Your task to perform on an android device: open app "Airtel Thanks" Image 0: 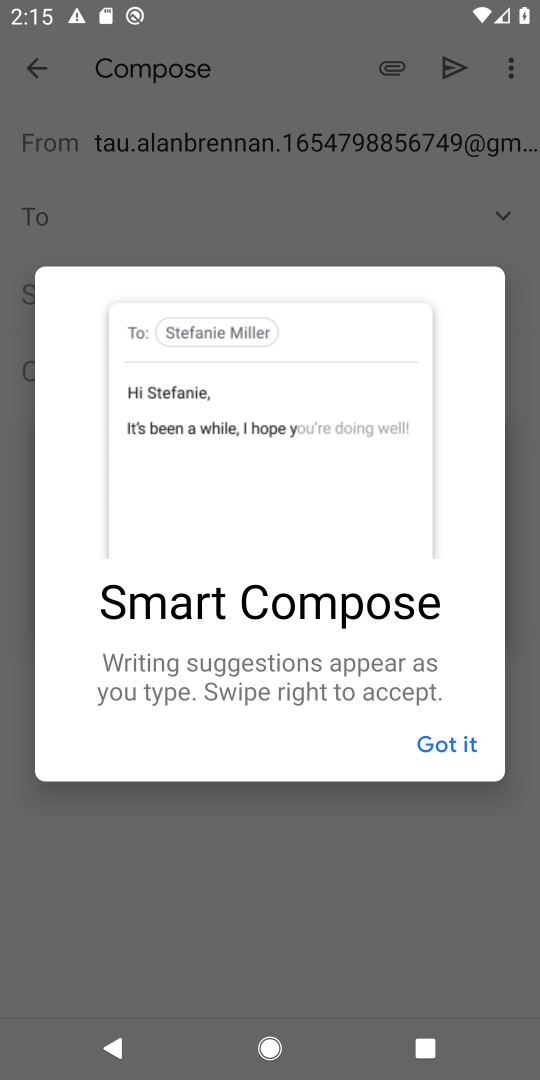
Step 0: press home button
Your task to perform on an android device: open app "Airtel Thanks" Image 1: 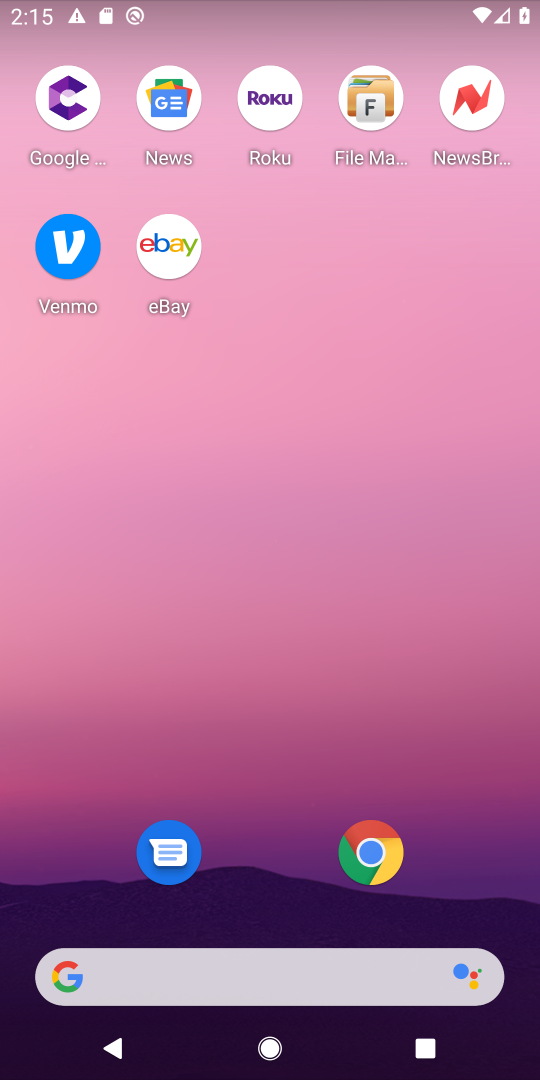
Step 1: drag from (288, 931) to (289, 121)
Your task to perform on an android device: open app "Airtel Thanks" Image 2: 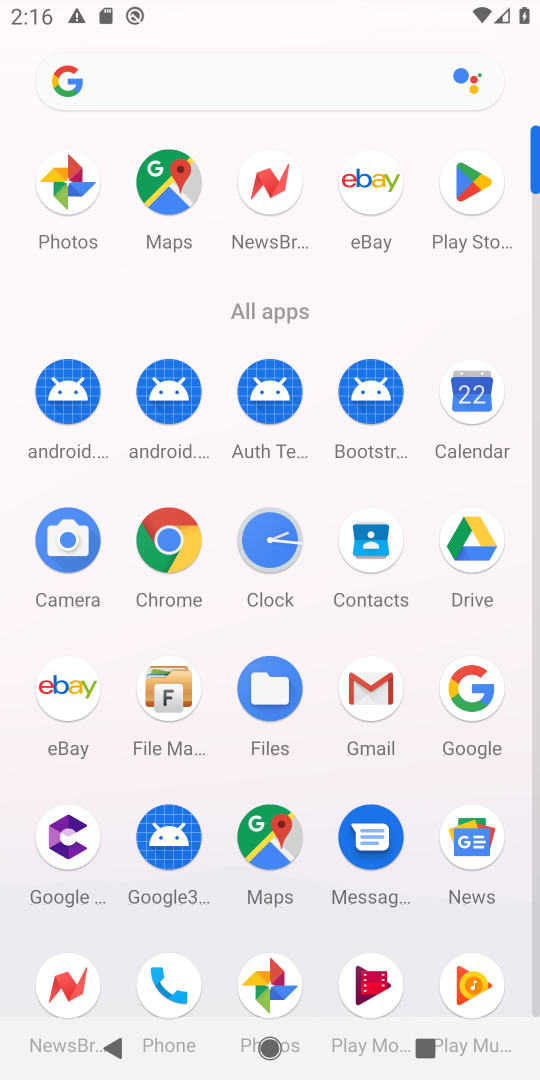
Step 2: click (473, 171)
Your task to perform on an android device: open app "Airtel Thanks" Image 3: 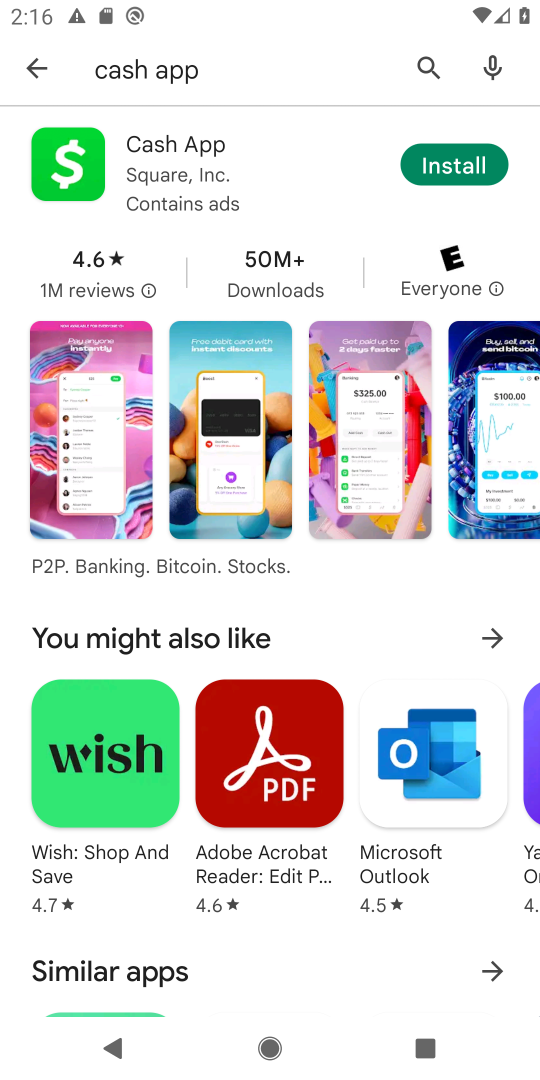
Step 3: click (423, 63)
Your task to perform on an android device: open app "Airtel Thanks" Image 4: 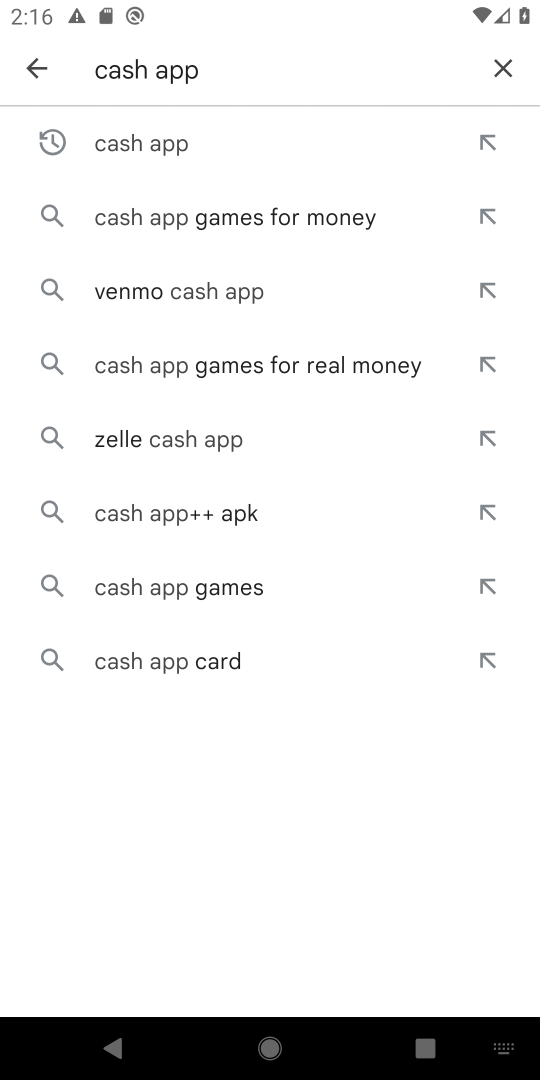
Step 4: click (506, 59)
Your task to perform on an android device: open app "Airtel Thanks" Image 5: 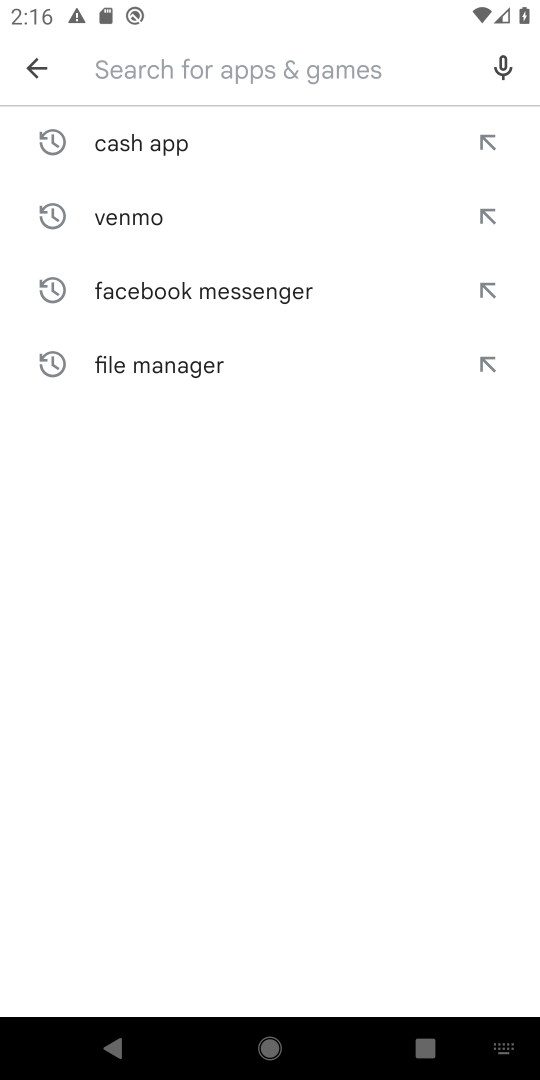
Step 5: type "Airtel Thanks"
Your task to perform on an android device: open app "Airtel Thanks" Image 6: 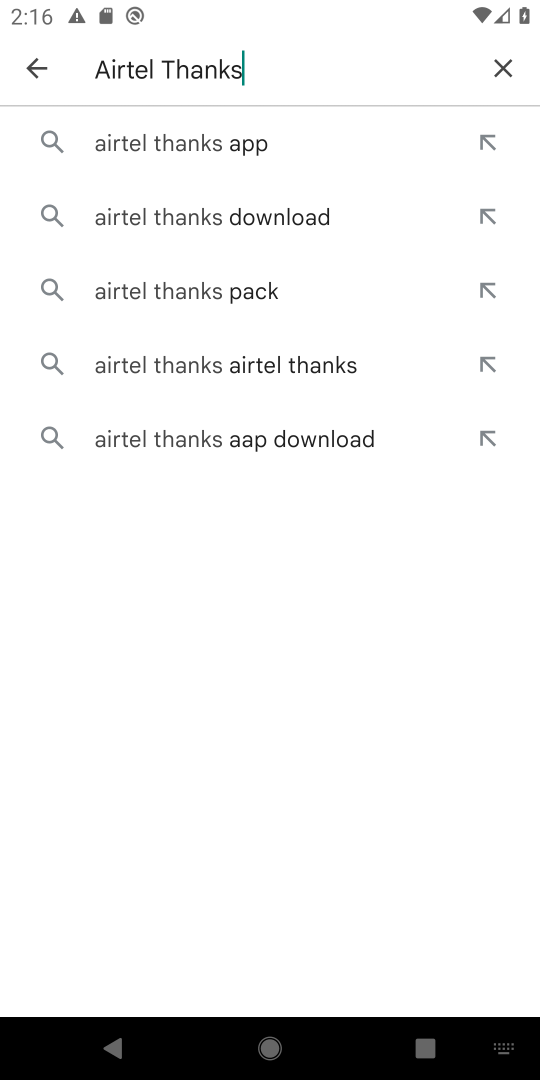
Step 6: click (193, 147)
Your task to perform on an android device: open app "Airtel Thanks" Image 7: 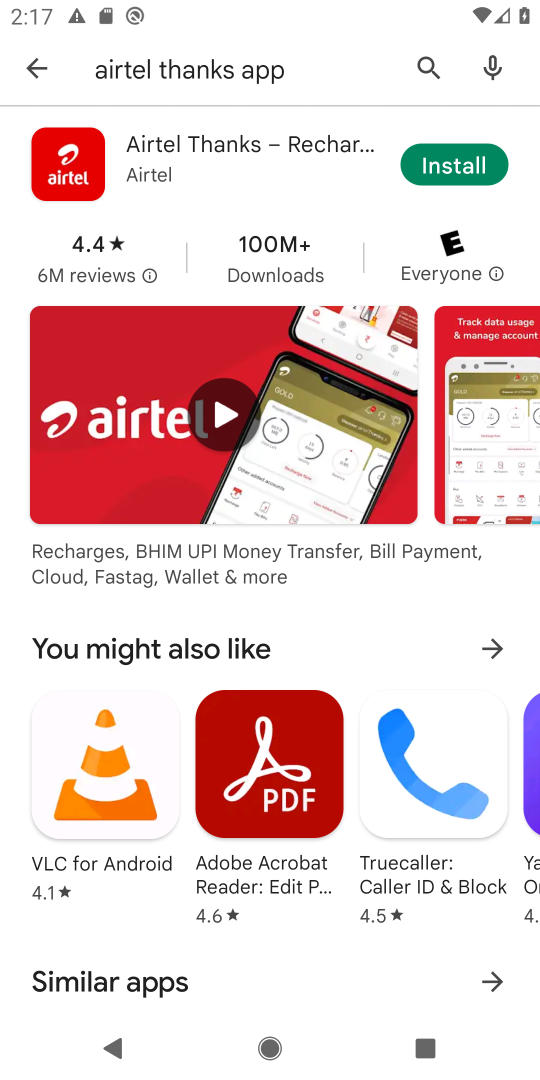
Step 7: task complete